Your task to perform on an android device: stop showing notifications on the lock screen Image 0: 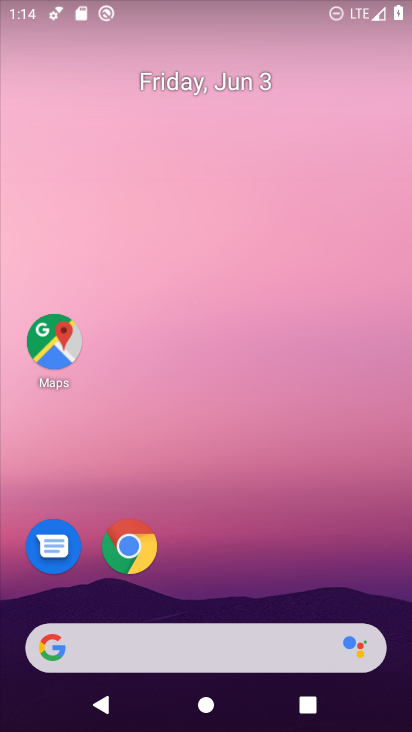
Step 0: drag from (279, 551) to (182, 112)
Your task to perform on an android device: stop showing notifications on the lock screen Image 1: 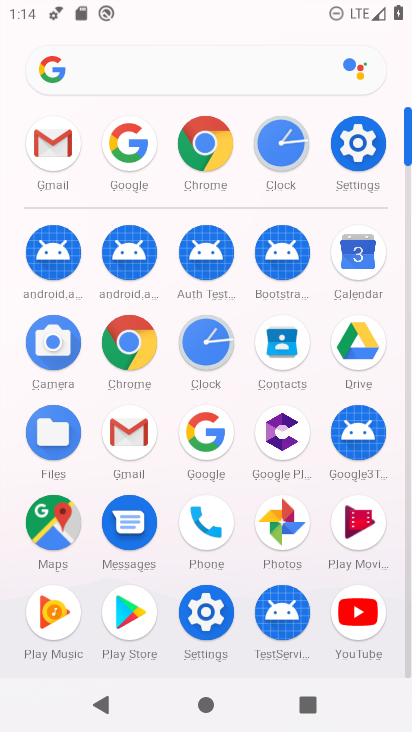
Step 1: click (356, 141)
Your task to perform on an android device: stop showing notifications on the lock screen Image 2: 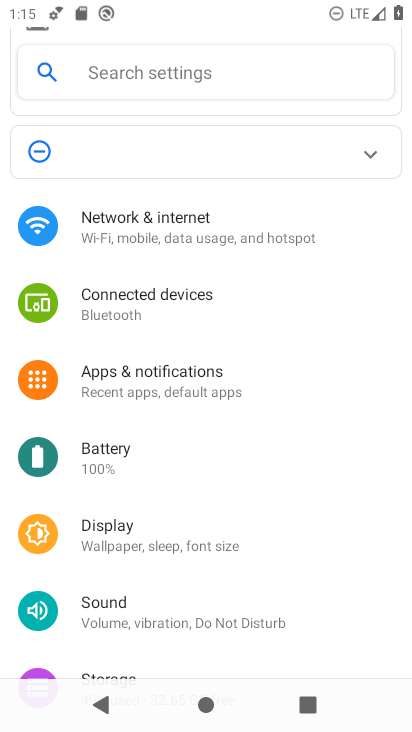
Step 2: click (179, 389)
Your task to perform on an android device: stop showing notifications on the lock screen Image 3: 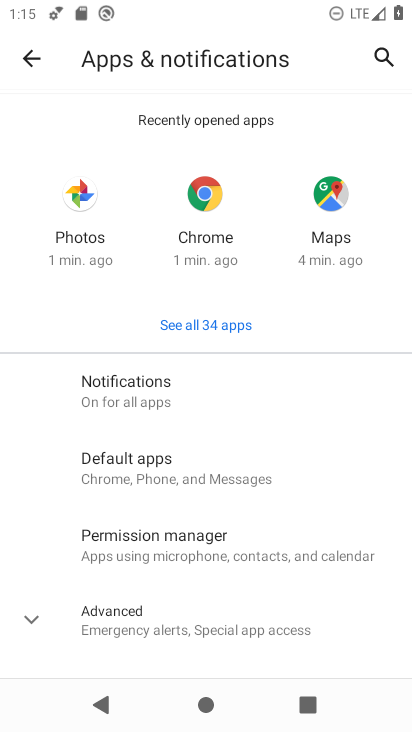
Step 3: click (126, 383)
Your task to perform on an android device: stop showing notifications on the lock screen Image 4: 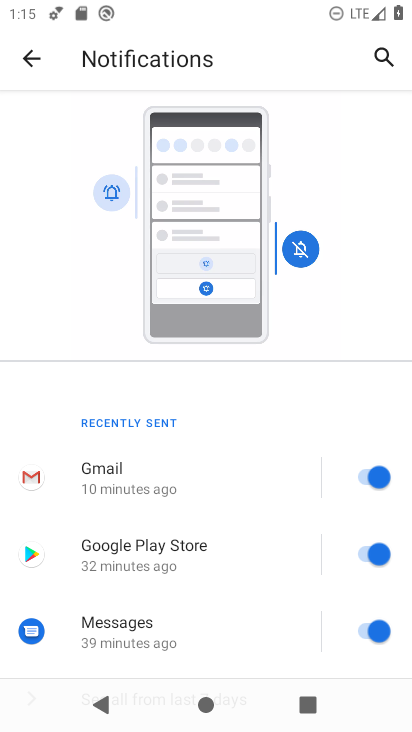
Step 4: drag from (141, 511) to (240, 387)
Your task to perform on an android device: stop showing notifications on the lock screen Image 5: 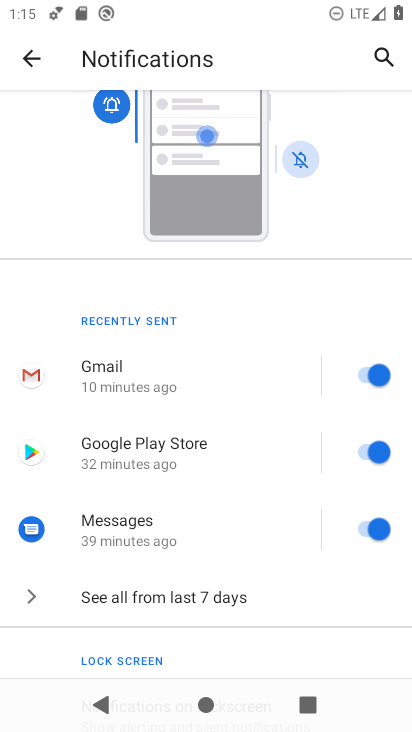
Step 5: drag from (132, 569) to (195, 459)
Your task to perform on an android device: stop showing notifications on the lock screen Image 6: 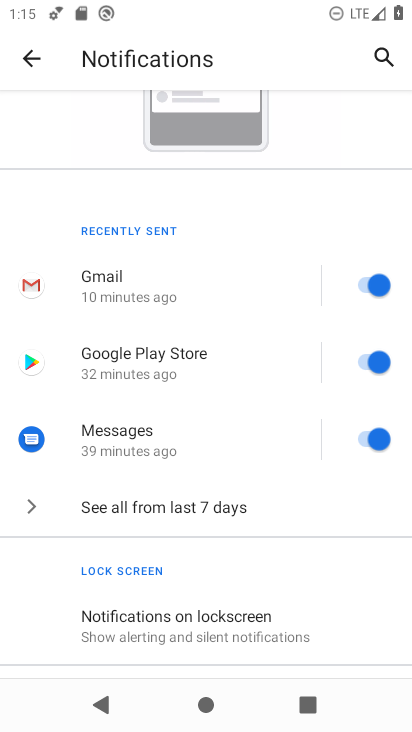
Step 6: drag from (198, 579) to (247, 465)
Your task to perform on an android device: stop showing notifications on the lock screen Image 7: 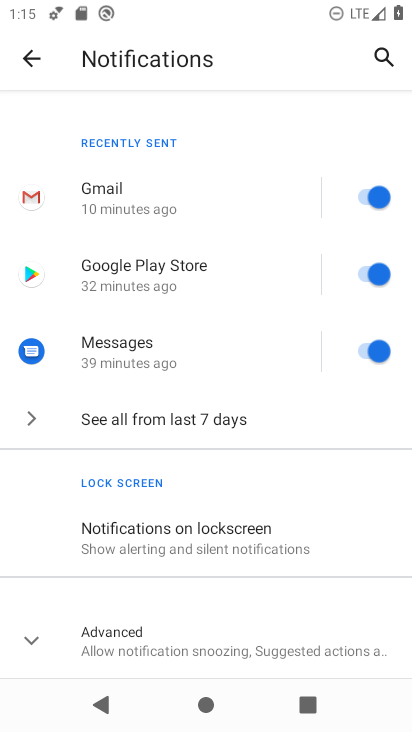
Step 7: click (247, 536)
Your task to perform on an android device: stop showing notifications on the lock screen Image 8: 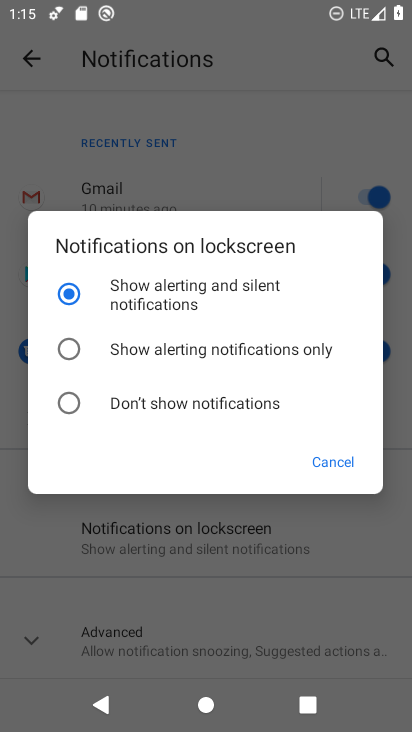
Step 8: click (69, 406)
Your task to perform on an android device: stop showing notifications on the lock screen Image 9: 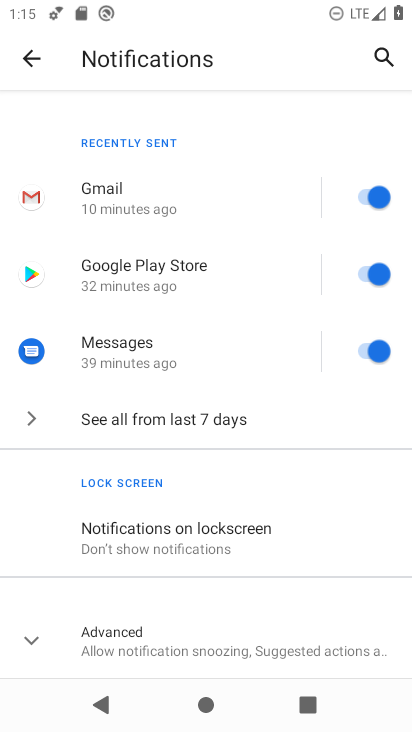
Step 9: task complete